Your task to perform on an android device: toggle improve location accuracy Image 0: 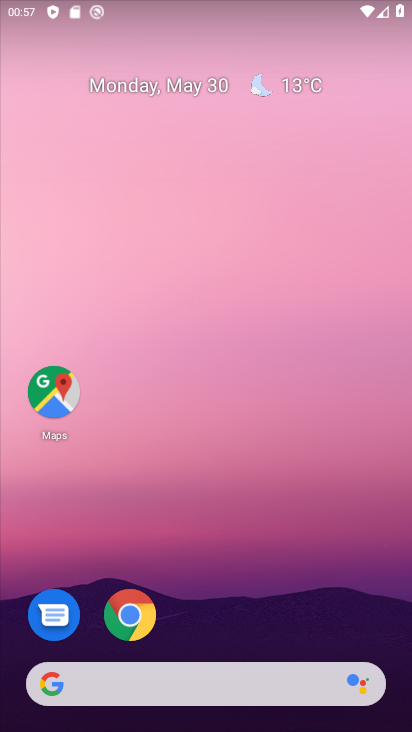
Step 0: drag from (180, 642) to (138, 20)
Your task to perform on an android device: toggle improve location accuracy Image 1: 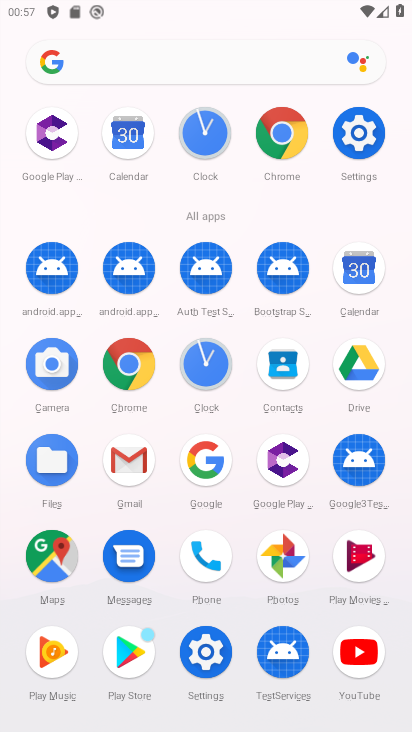
Step 1: click (364, 150)
Your task to perform on an android device: toggle improve location accuracy Image 2: 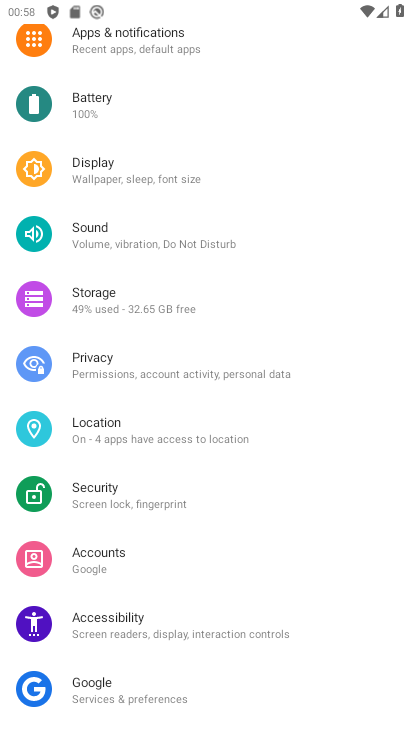
Step 2: click (124, 441)
Your task to perform on an android device: toggle improve location accuracy Image 3: 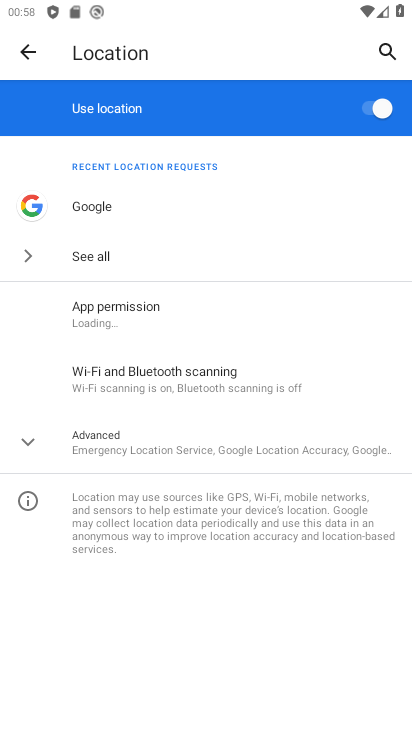
Step 3: click (135, 437)
Your task to perform on an android device: toggle improve location accuracy Image 4: 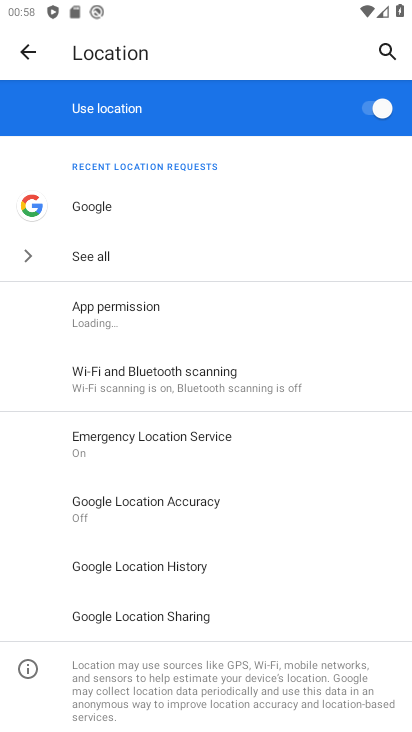
Step 4: click (168, 503)
Your task to perform on an android device: toggle improve location accuracy Image 5: 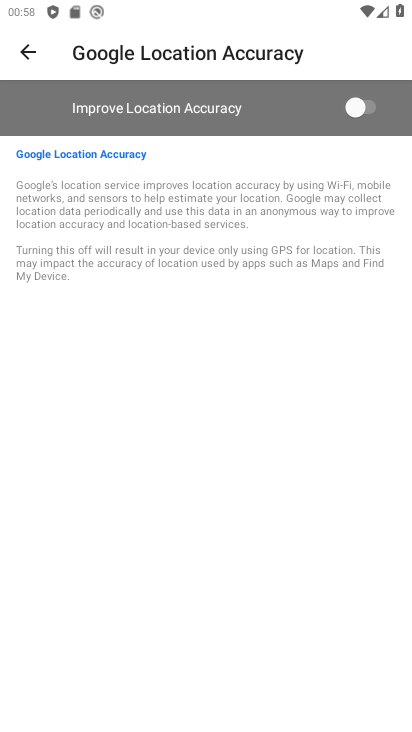
Step 5: click (364, 99)
Your task to perform on an android device: toggle improve location accuracy Image 6: 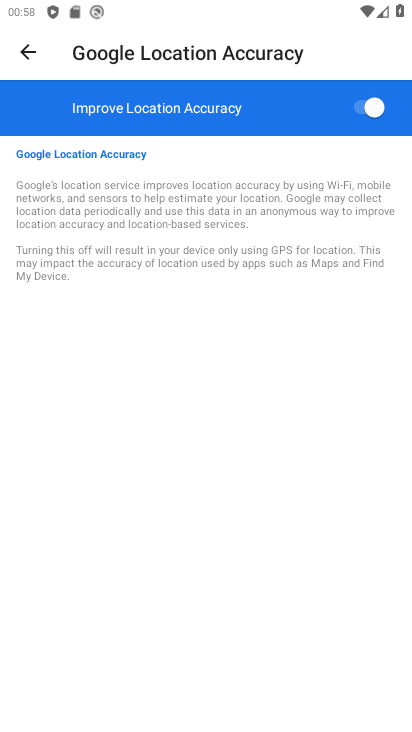
Step 6: task complete